Your task to perform on an android device: refresh tabs in the chrome app Image 0: 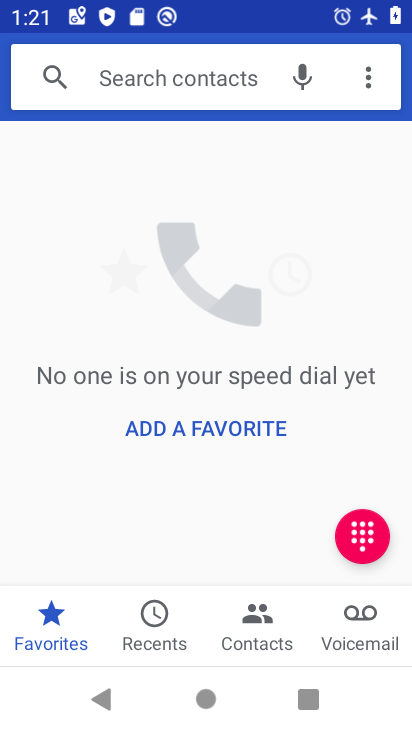
Step 0: press home button
Your task to perform on an android device: refresh tabs in the chrome app Image 1: 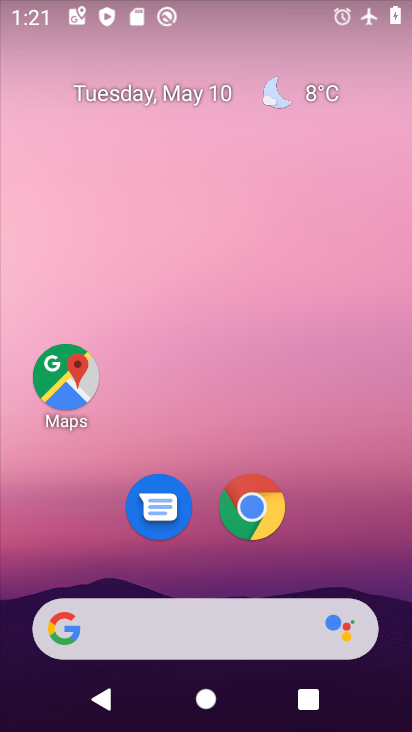
Step 1: click (252, 505)
Your task to perform on an android device: refresh tabs in the chrome app Image 2: 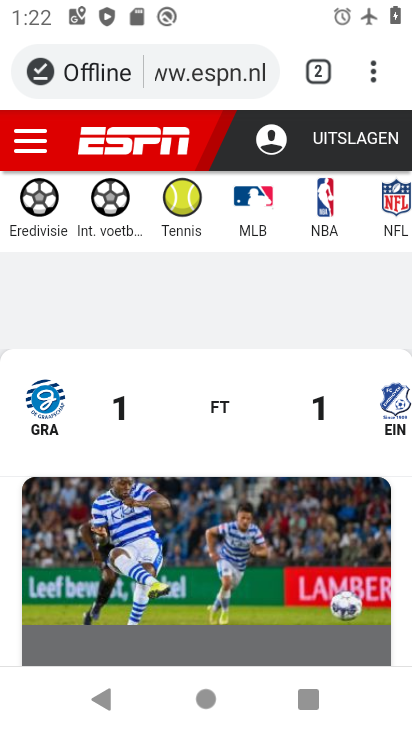
Step 2: click (376, 77)
Your task to perform on an android device: refresh tabs in the chrome app Image 3: 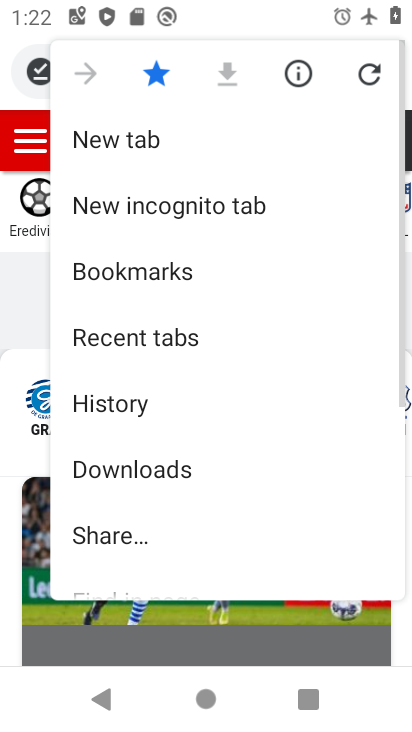
Step 3: click (370, 72)
Your task to perform on an android device: refresh tabs in the chrome app Image 4: 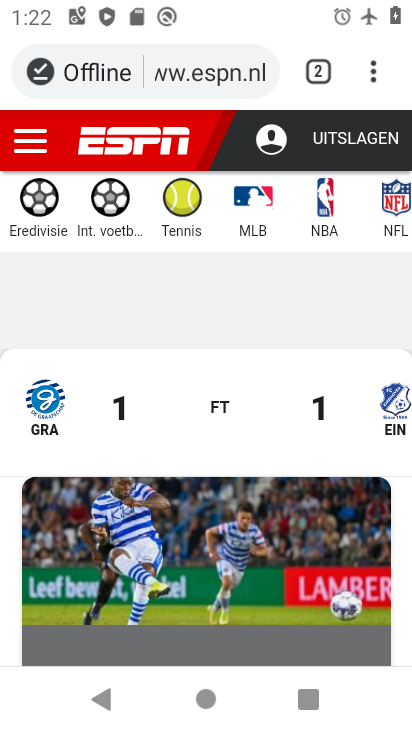
Step 4: task complete